Your task to perform on an android device: turn off airplane mode Image 0: 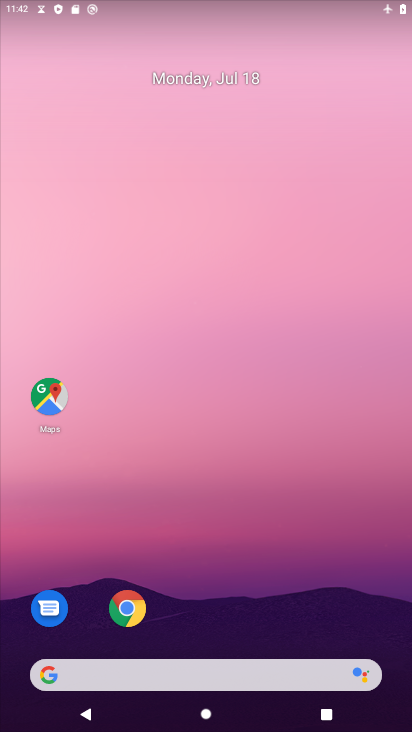
Step 0: drag from (341, 695) to (309, 39)
Your task to perform on an android device: turn off airplane mode Image 1: 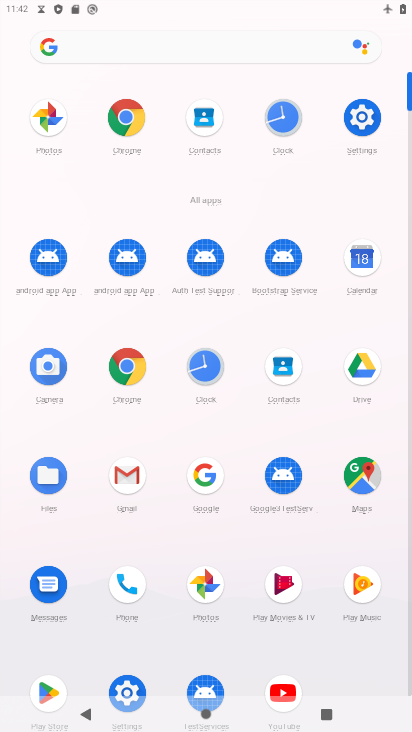
Step 1: click (399, 125)
Your task to perform on an android device: turn off airplane mode Image 2: 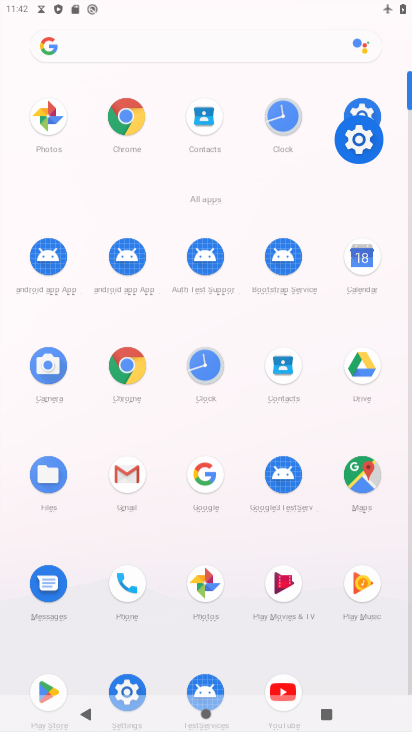
Step 2: click (359, 125)
Your task to perform on an android device: turn off airplane mode Image 3: 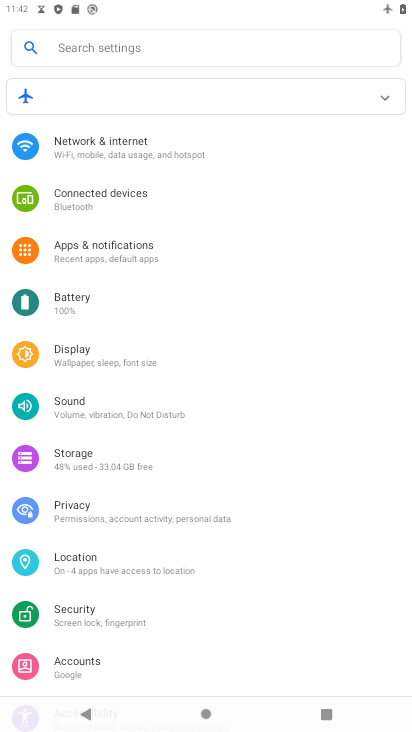
Step 3: click (187, 147)
Your task to perform on an android device: turn off airplane mode Image 4: 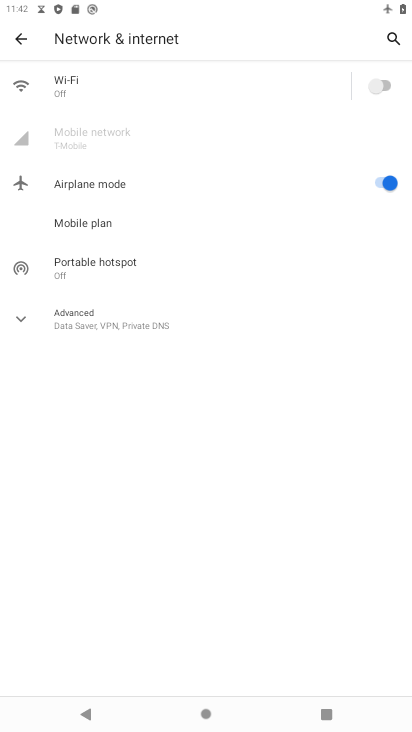
Step 4: click (384, 179)
Your task to perform on an android device: turn off airplane mode Image 5: 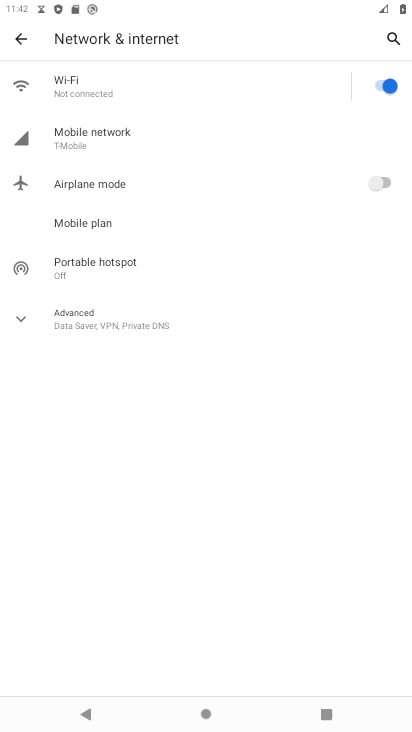
Step 5: task complete